Your task to perform on an android device: turn off wifi Image 0: 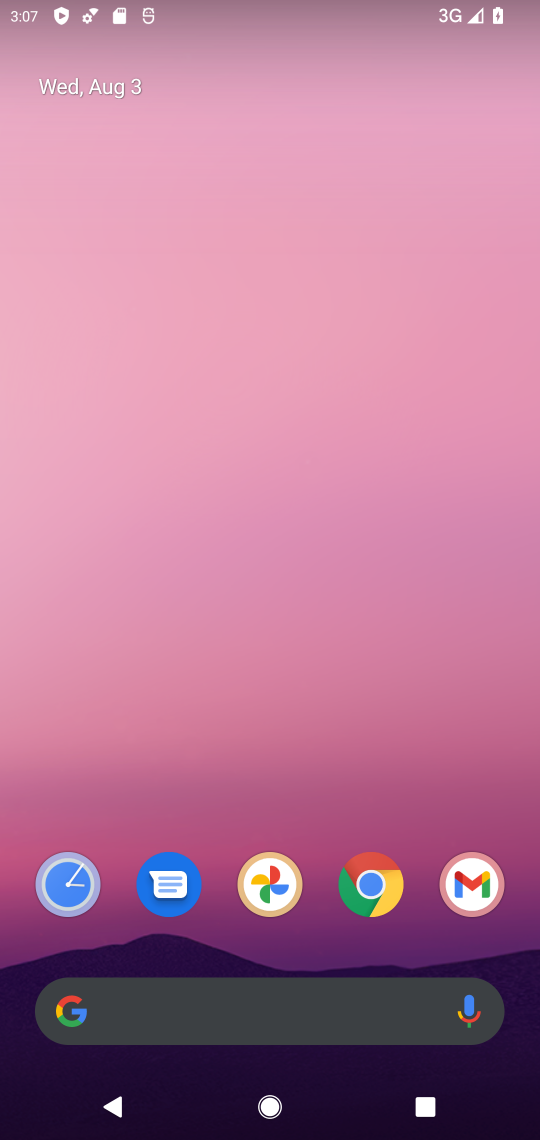
Step 0: task complete